Your task to perform on an android device: turn on notifications settings in the gmail app Image 0: 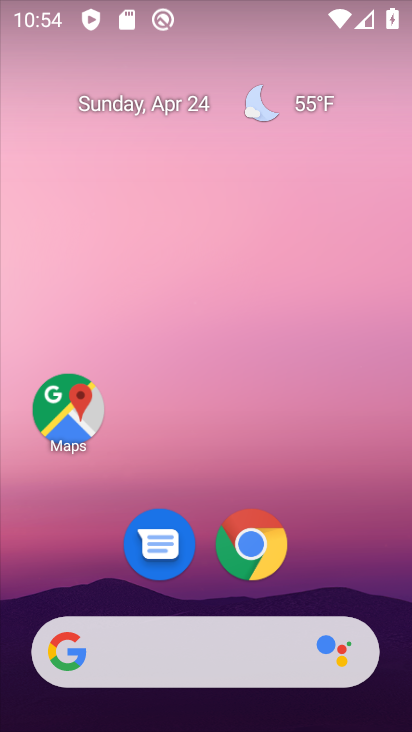
Step 0: drag from (373, 425) to (341, 101)
Your task to perform on an android device: turn on notifications settings in the gmail app Image 1: 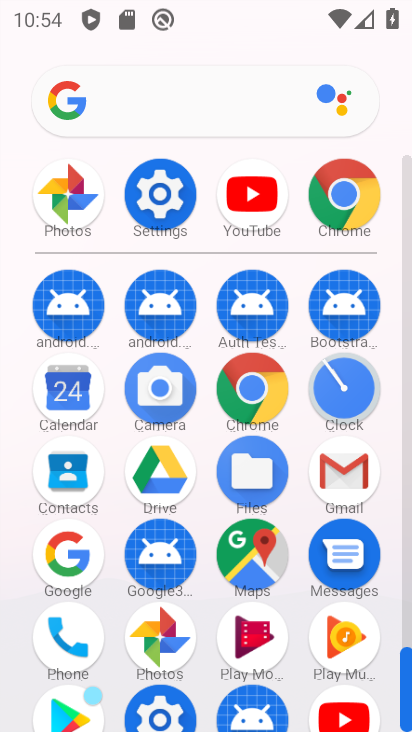
Step 1: click (345, 476)
Your task to perform on an android device: turn on notifications settings in the gmail app Image 2: 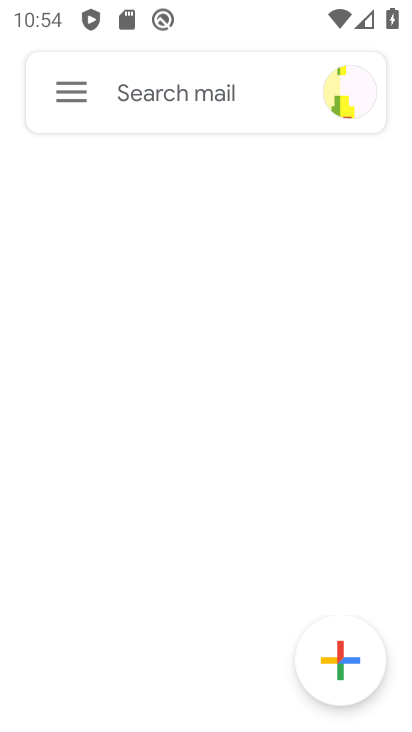
Step 2: click (60, 81)
Your task to perform on an android device: turn on notifications settings in the gmail app Image 3: 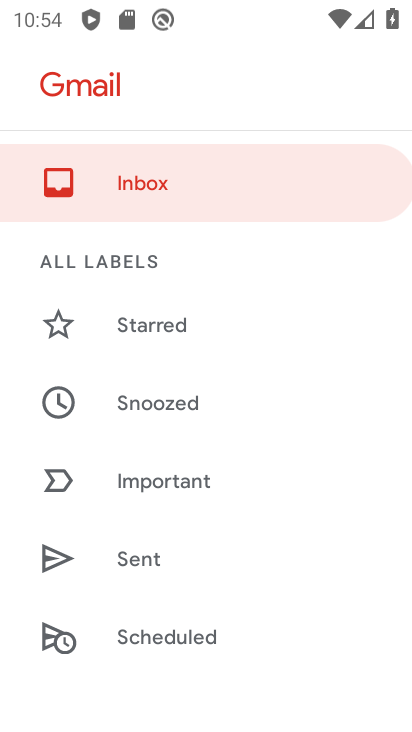
Step 3: drag from (236, 643) to (218, 99)
Your task to perform on an android device: turn on notifications settings in the gmail app Image 4: 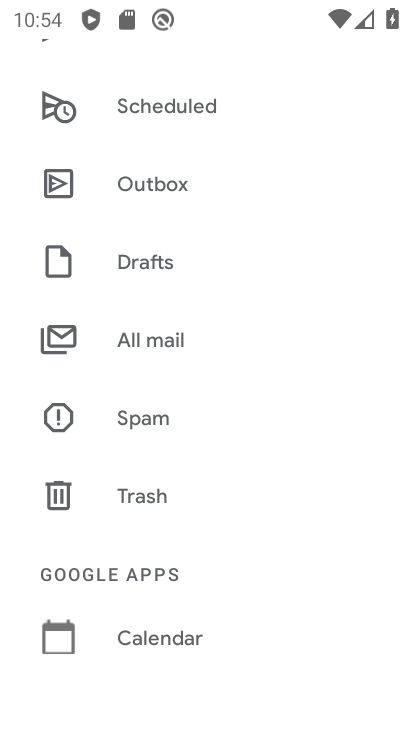
Step 4: drag from (196, 610) to (200, 198)
Your task to perform on an android device: turn on notifications settings in the gmail app Image 5: 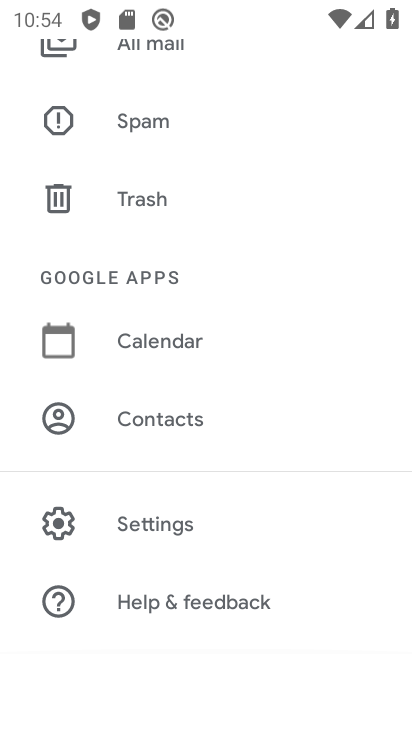
Step 5: click (178, 517)
Your task to perform on an android device: turn on notifications settings in the gmail app Image 6: 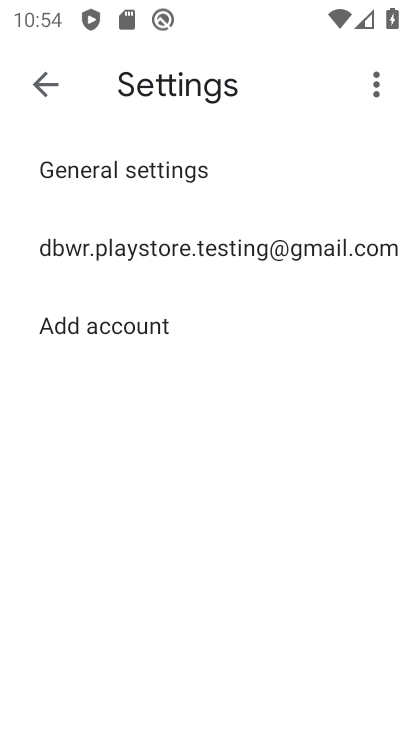
Step 6: click (226, 250)
Your task to perform on an android device: turn on notifications settings in the gmail app Image 7: 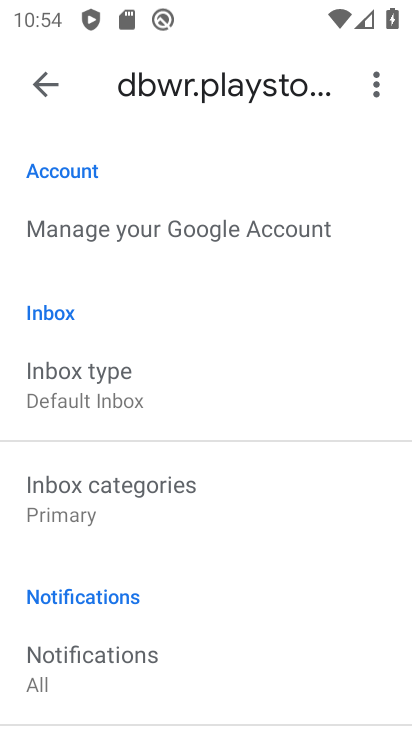
Step 7: drag from (200, 634) to (234, 314)
Your task to perform on an android device: turn on notifications settings in the gmail app Image 8: 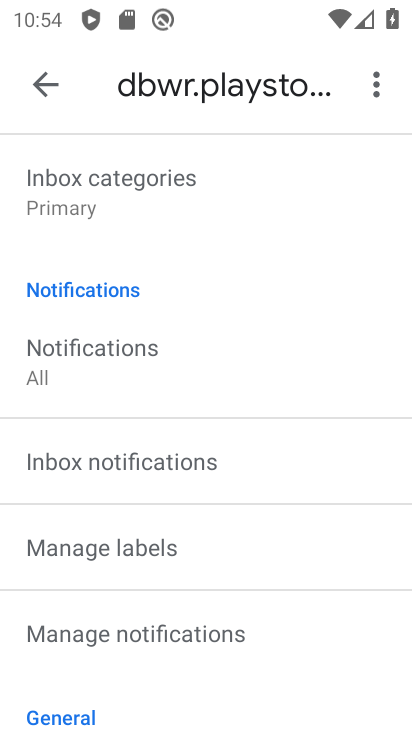
Step 8: click (139, 624)
Your task to perform on an android device: turn on notifications settings in the gmail app Image 9: 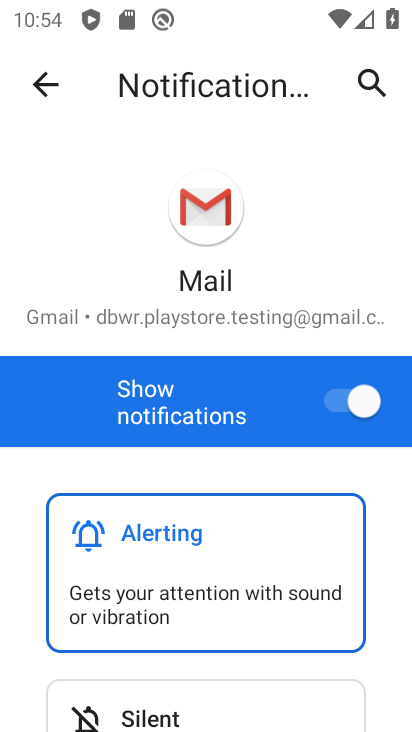
Step 9: task complete